Your task to perform on an android device: turn notification dots off Image 0: 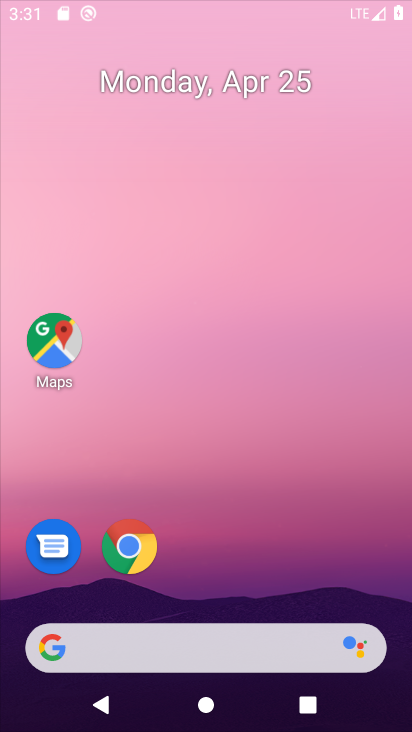
Step 0: drag from (276, 587) to (332, 22)
Your task to perform on an android device: turn notification dots off Image 1: 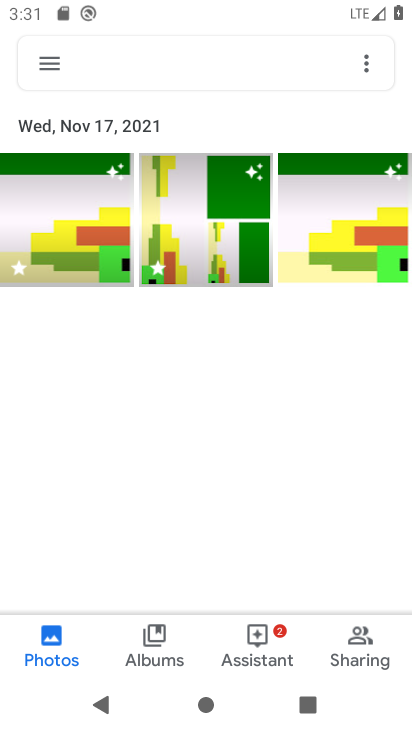
Step 1: press home button
Your task to perform on an android device: turn notification dots off Image 2: 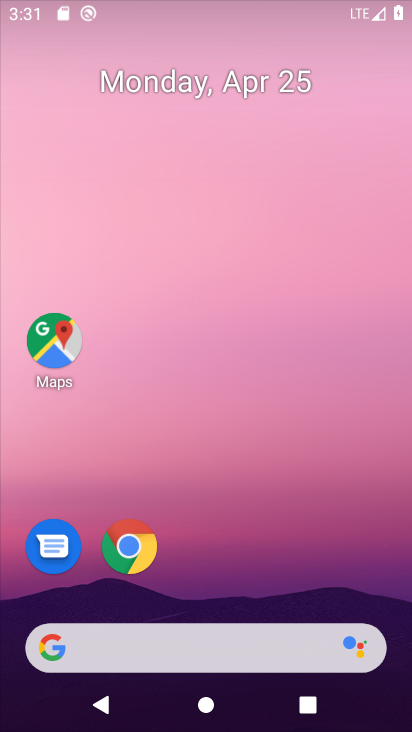
Step 2: drag from (212, 489) to (269, 51)
Your task to perform on an android device: turn notification dots off Image 3: 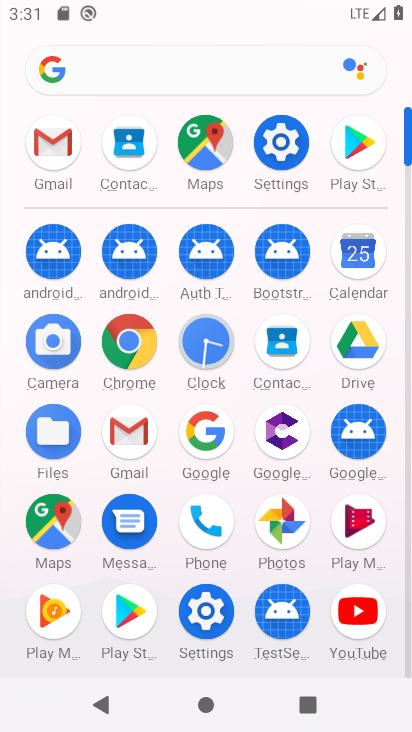
Step 3: click (199, 619)
Your task to perform on an android device: turn notification dots off Image 4: 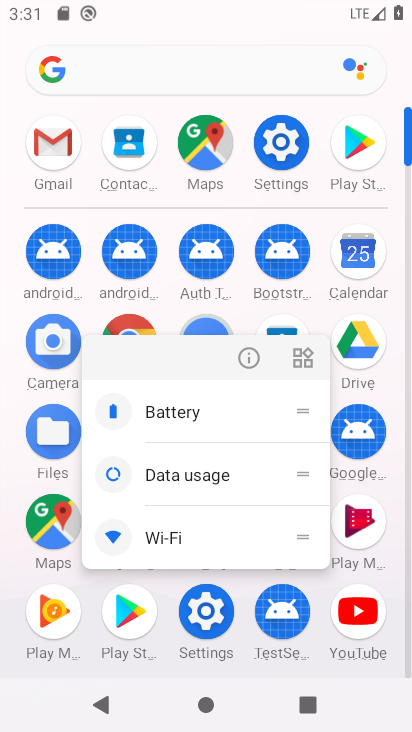
Step 4: click (204, 615)
Your task to perform on an android device: turn notification dots off Image 5: 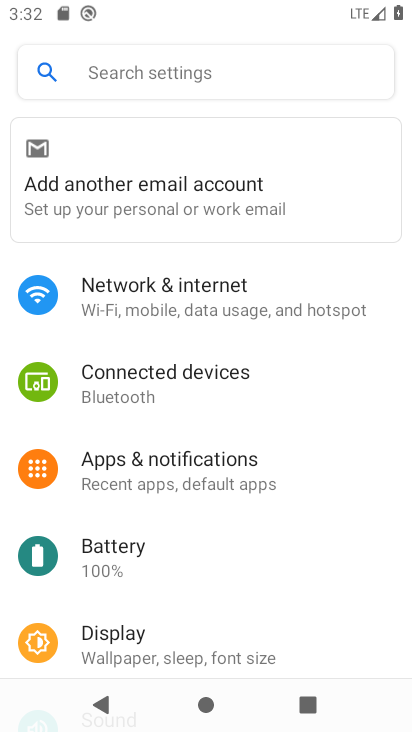
Step 5: click (247, 457)
Your task to perform on an android device: turn notification dots off Image 6: 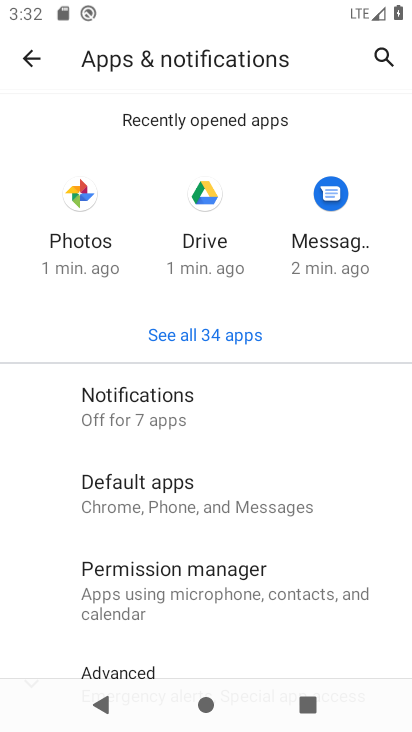
Step 6: click (227, 396)
Your task to perform on an android device: turn notification dots off Image 7: 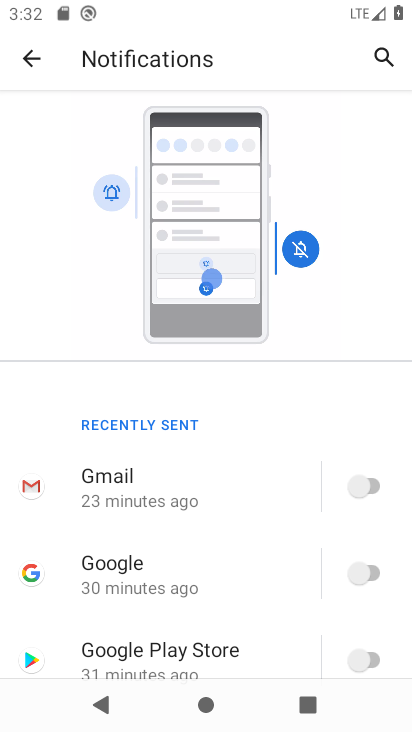
Step 7: drag from (185, 555) to (222, 108)
Your task to perform on an android device: turn notification dots off Image 8: 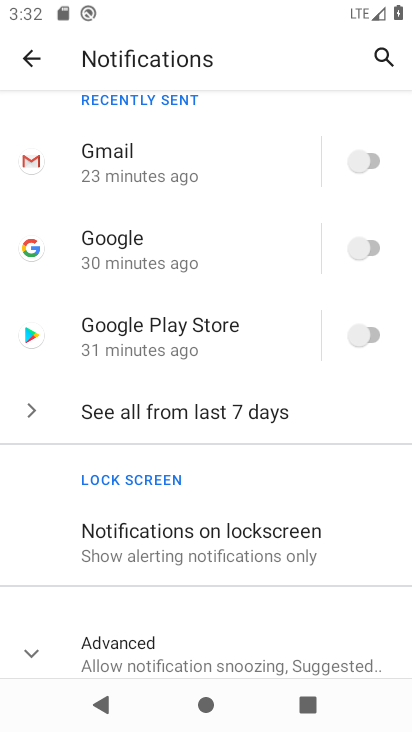
Step 8: click (201, 638)
Your task to perform on an android device: turn notification dots off Image 9: 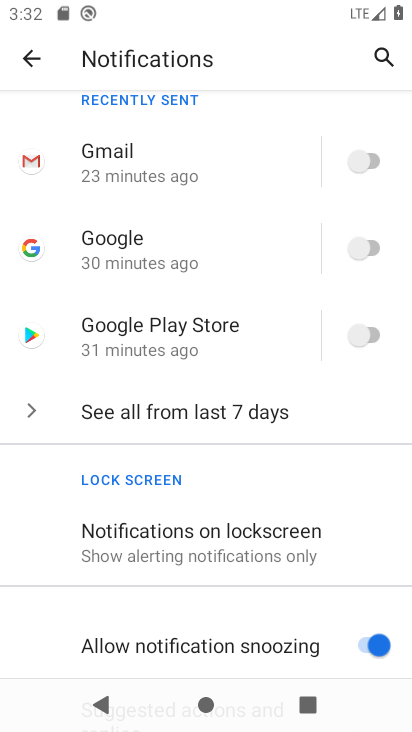
Step 9: task complete